Your task to perform on an android device: check storage Image 0: 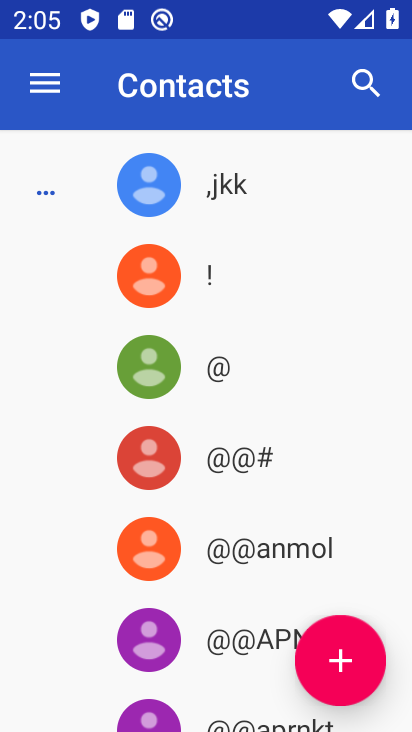
Step 0: press home button
Your task to perform on an android device: check storage Image 1: 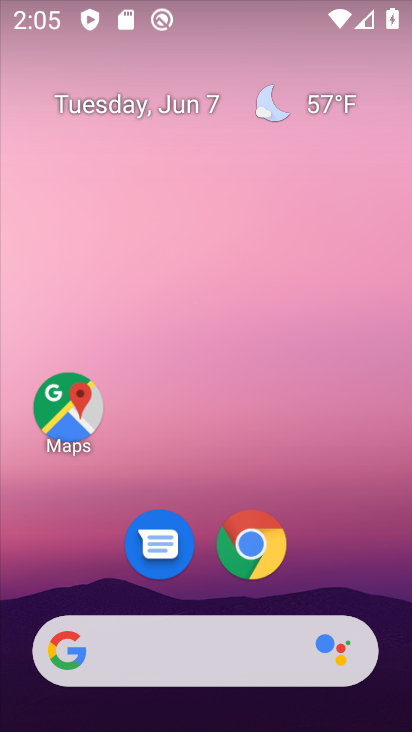
Step 1: drag from (329, 366) to (333, 190)
Your task to perform on an android device: check storage Image 2: 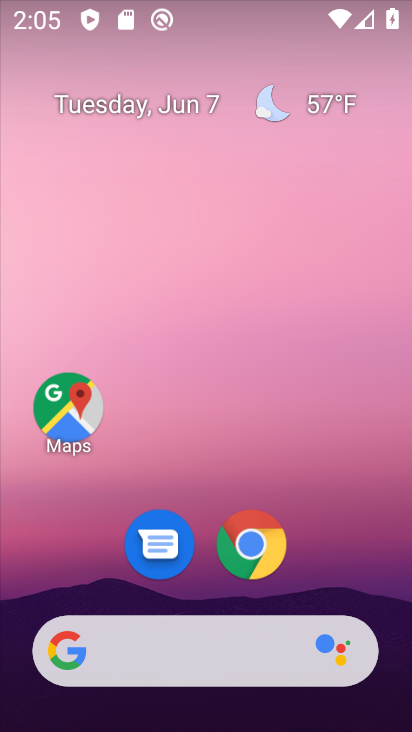
Step 2: drag from (278, 607) to (312, 248)
Your task to perform on an android device: check storage Image 3: 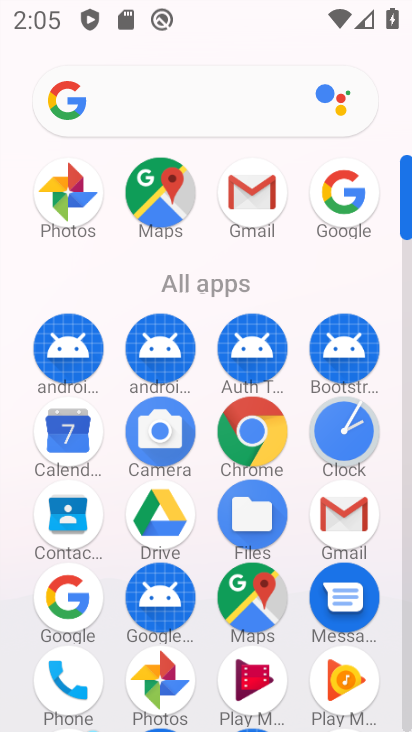
Step 3: drag from (191, 571) to (229, 285)
Your task to perform on an android device: check storage Image 4: 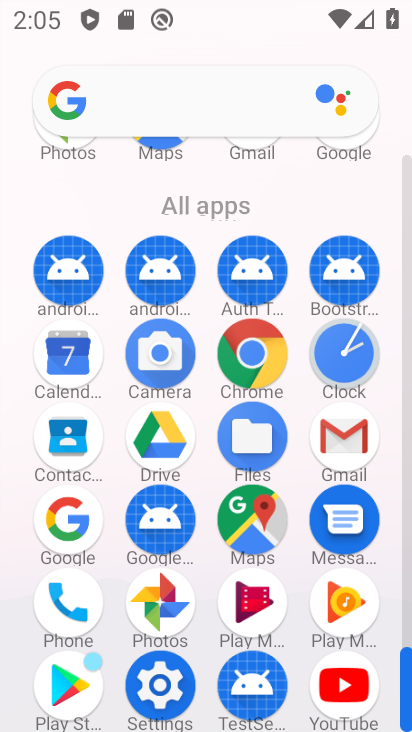
Step 4: click (164, 681)
Your task to perform on an android device: check storage Image 5: 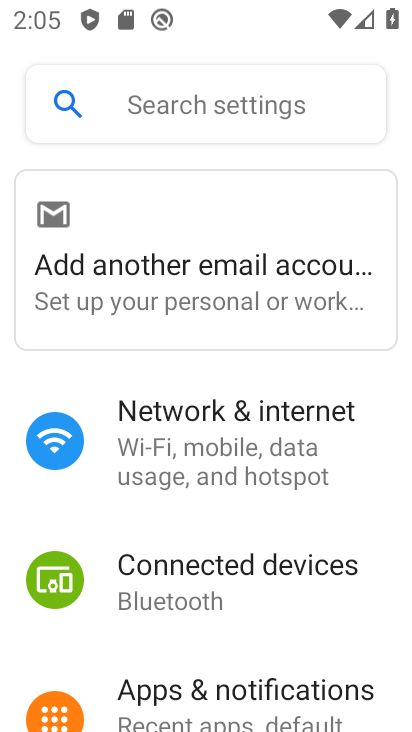
Step 5: drag from (170, 625) to (224, 318)
Your task to perform on an android device: check storage Image 6: 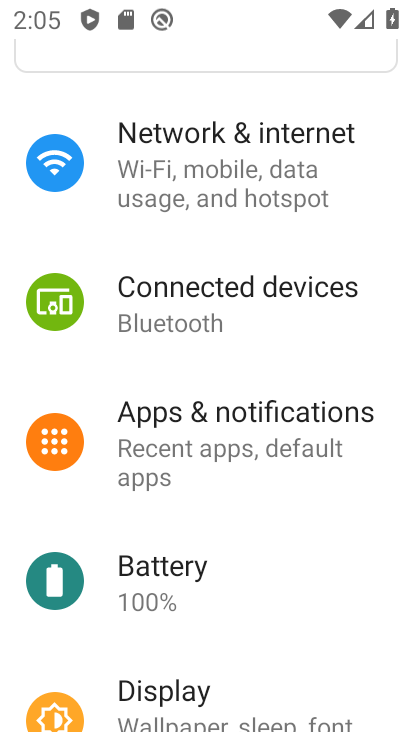
Step 6: drag from (174, 663) to (250, 224)
Your task to perform on an android device: check storage Image 7: 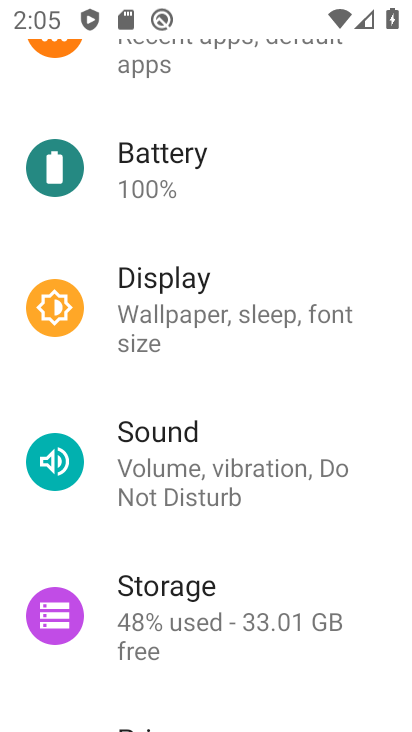
Step 7: click (178, 585)
Your task to perform on an android device: check storage Image 8: 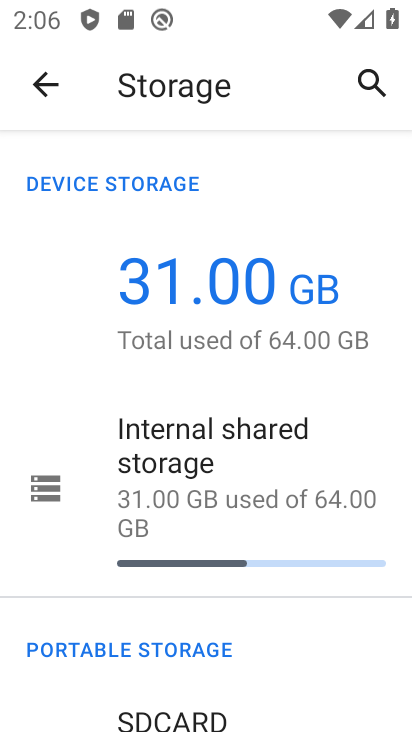
Step 8: task complete